Your task to perform on an android device: Open battery settings Image 0: 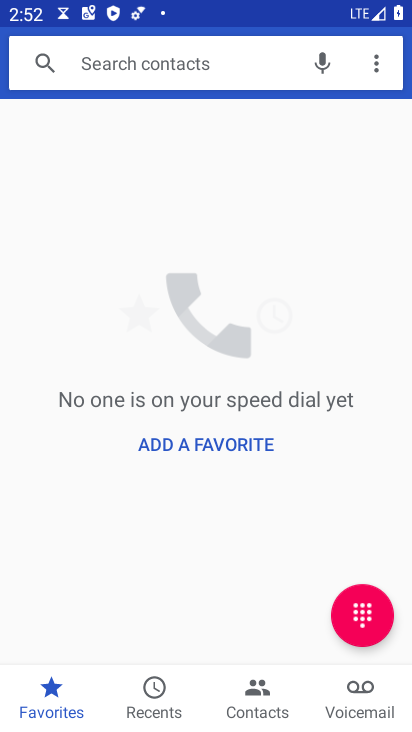
Step 0: press home button
Your task to perform on an android device: Open battery settings Image 1: 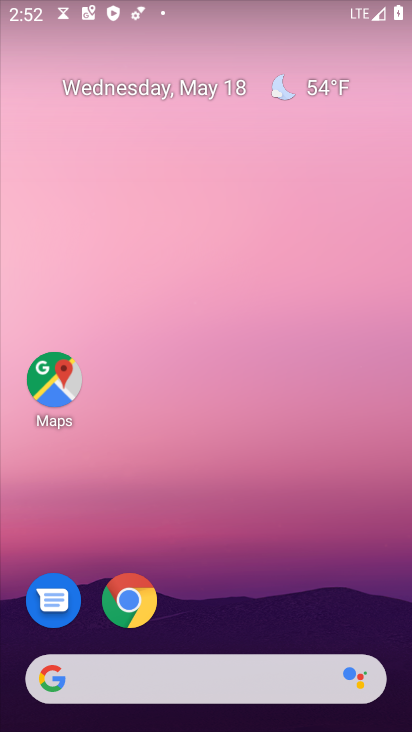
Step 1: drag from (170, 672) to (337, 140)
Your task to perform on an android device: Open battery settings Image 2: 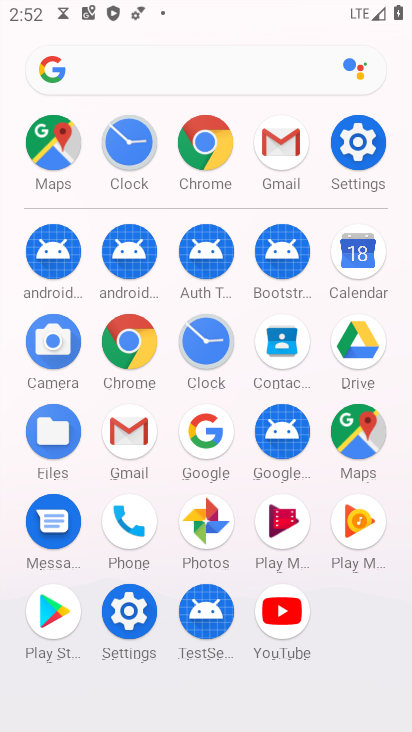
Step 2: click (367, 149)
Your task to perform on an android device: Open battery settings Image 3: 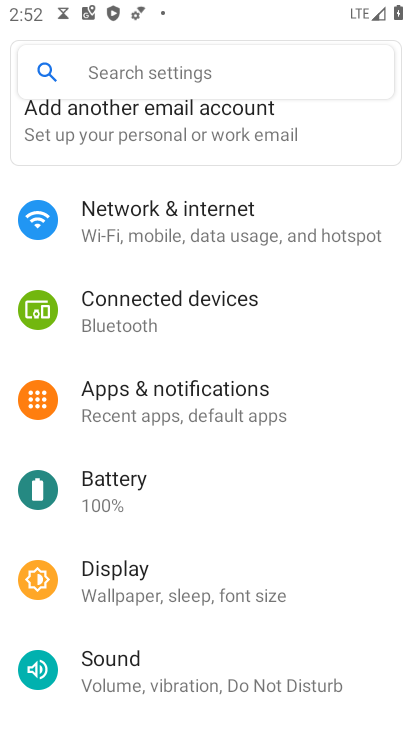
Step 3: click (112, 482)
Your task to perform on an android device: Open battery settings Image 4: 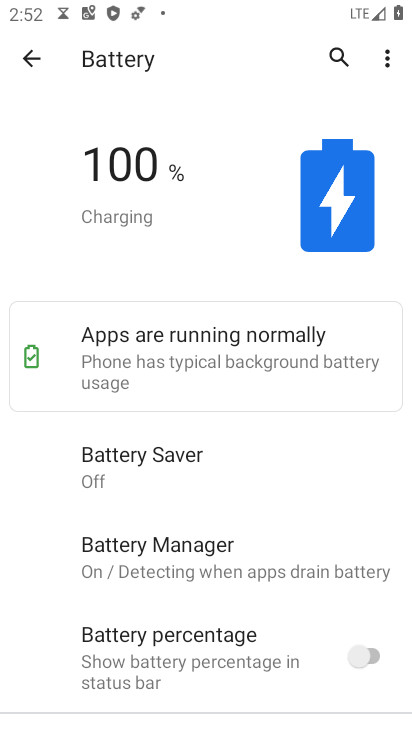
Step 4: task complete